Your task to perform on an android device: Play the last video I watched on Youtube Image 0: 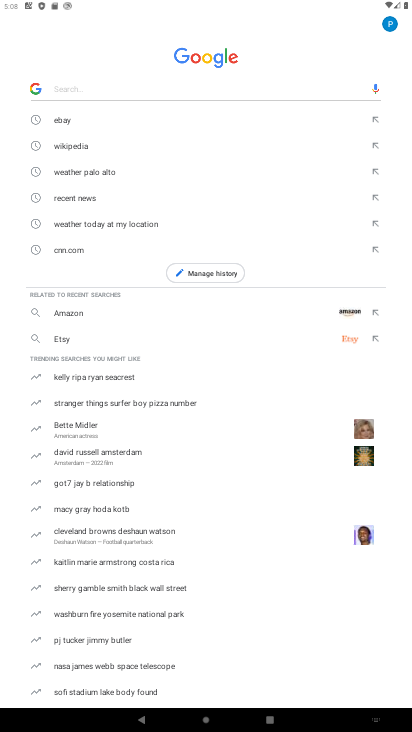
Step 0: press home button
Your task to perform on an android device: Play the last video I watched on Youtube Image 1: 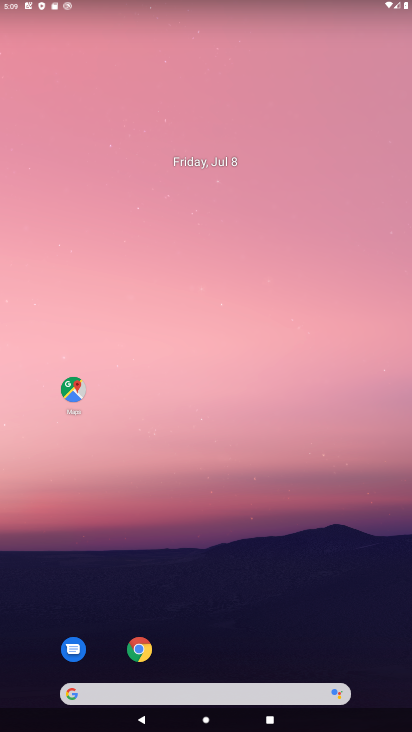
Step 1: drag from (300, 568) to (256, 121)
Your task to perform on an android device: Play the last video I watched on Youtube Image 2: 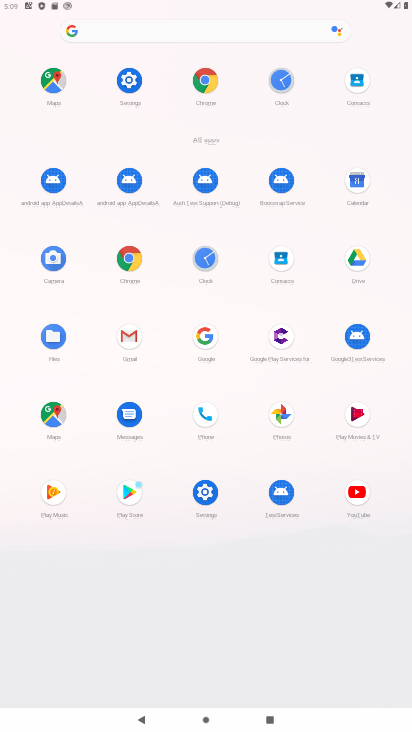
Step 2: click (353, 489)
Your task to perform on an android device: Play the last video I watched on Youtube Image 3: 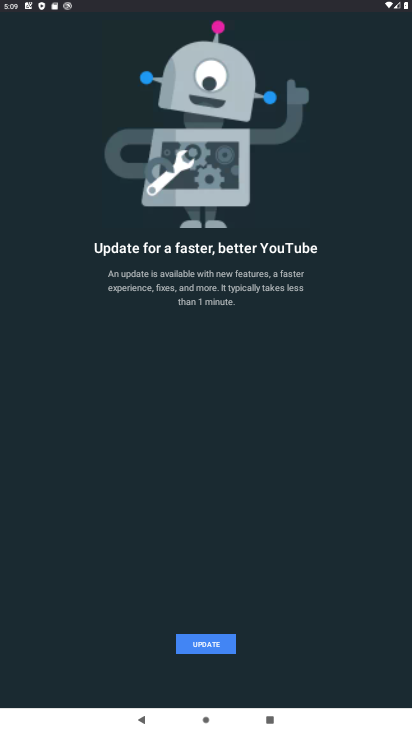
Step 3: click (227, 640)
Your task to perform on an android device: Play the last video I watched on Youtube Image 4: 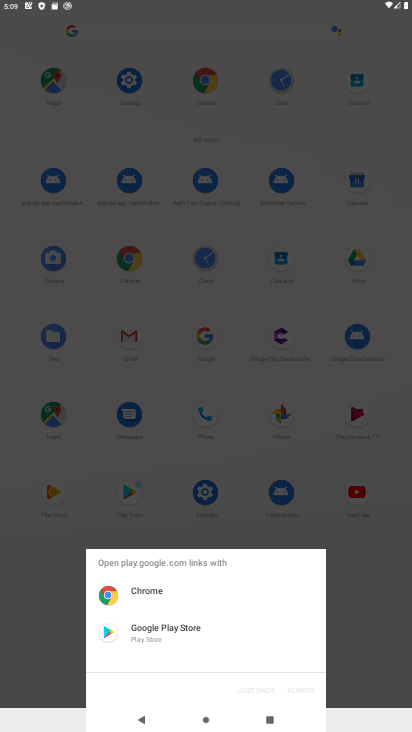
Step 4: click (164, 631)
Your task to perform on an android device: Play the last video I watched on Youtube Image 5: 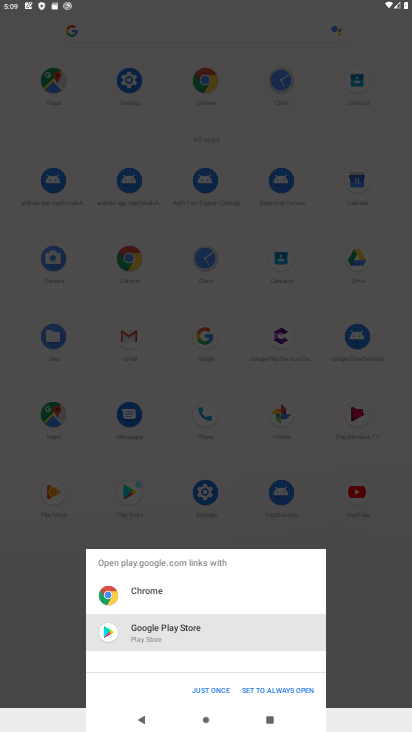
Step 5: click (209, 688)
Your task to perform on an android device: Play the last video I watched on Youtube Image 6: 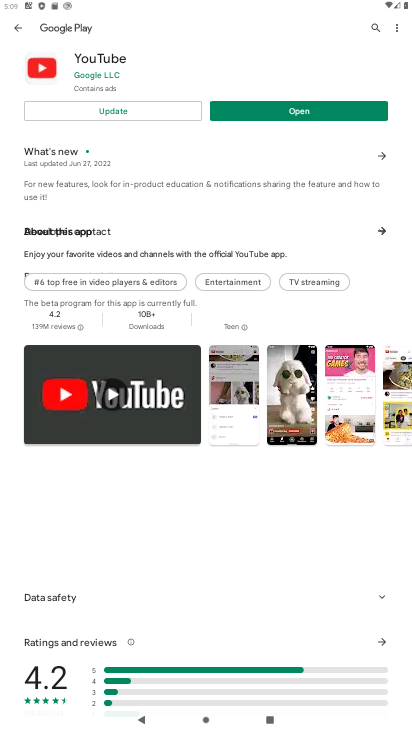
Step 6: click (126, 104)
Your task to perform on an android device: Play the last video I watched on Youtube Image 7: 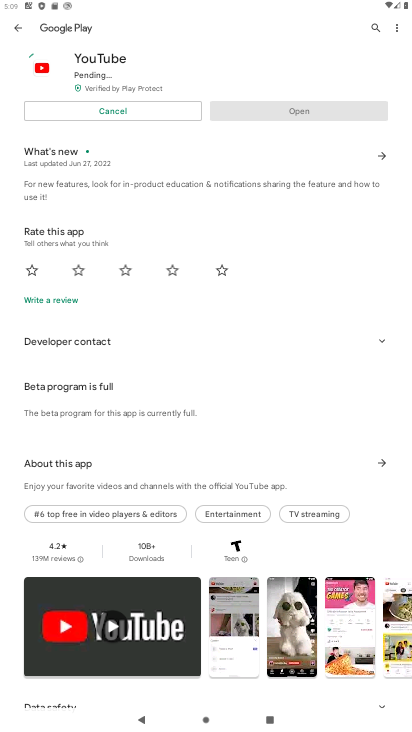
Step 7: task complete